Your task to perform on an android device: Go to Amazon Image 0: 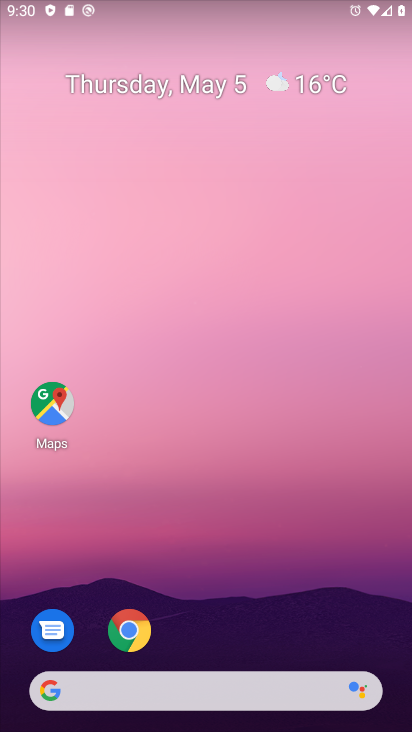
Step 0: click (121, 633)
Your task to perform on an android device: Go to Amazon Image 1: 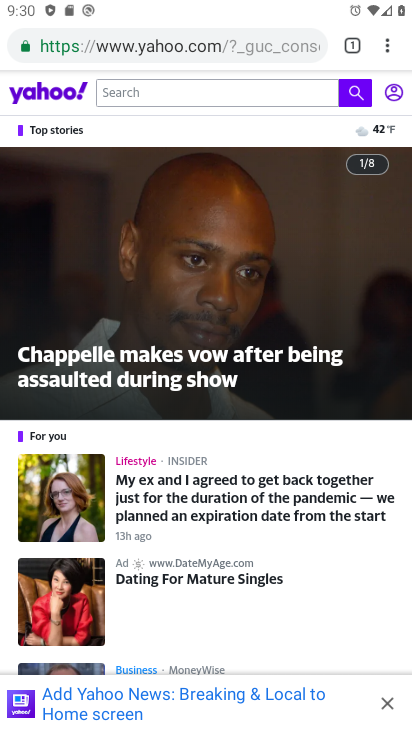
Step 1: click (147, 44)
Your task to perform on an android device: Go to Amazon Image 2: 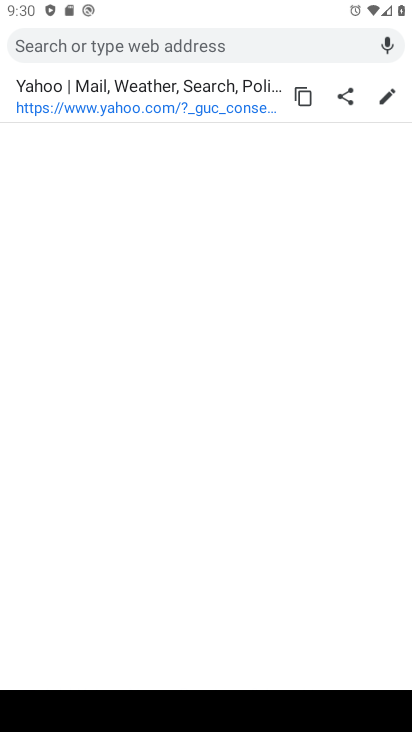
Step 2: type "Amazon"
Your task to perform on an android device: Go to Amazon Image 3: 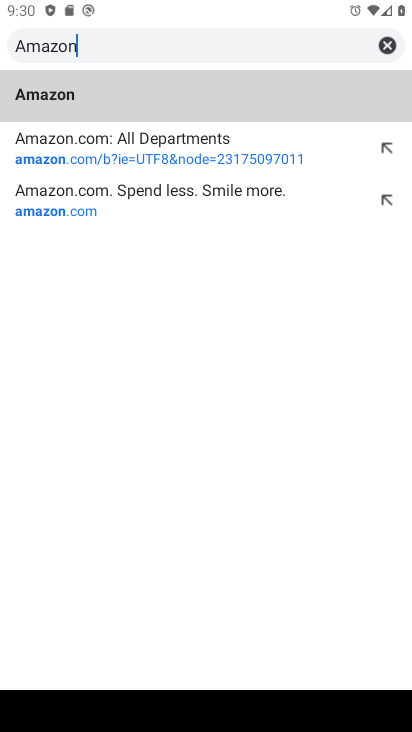
Step 3: click (55, 197)
Your task to perform on an android device: Go to Amazon Image 4: 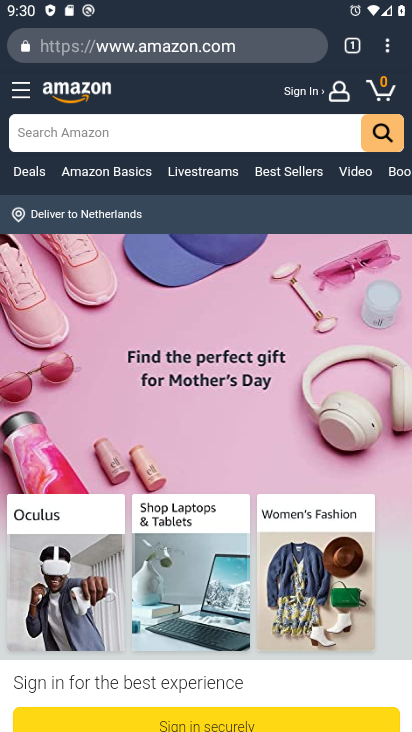
Step 4: task complete